Your task to perform on an android device: Go to network settings Image 0: 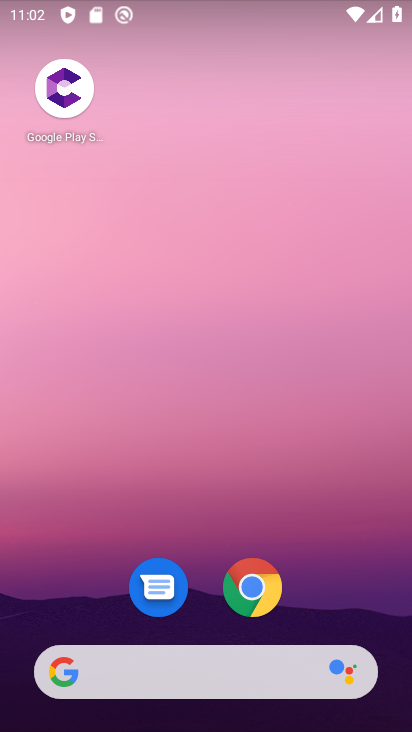
Step 0: drag from (322, 604) to (271, 58)
Your task to perform on an android device: Go to network settings Image 1: 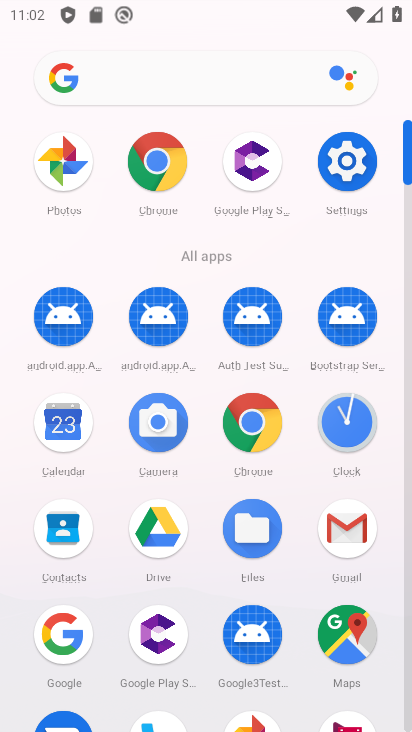
Step 1: click (347, 160)
Your task to perform on an android device: Go to network settings Image 2: 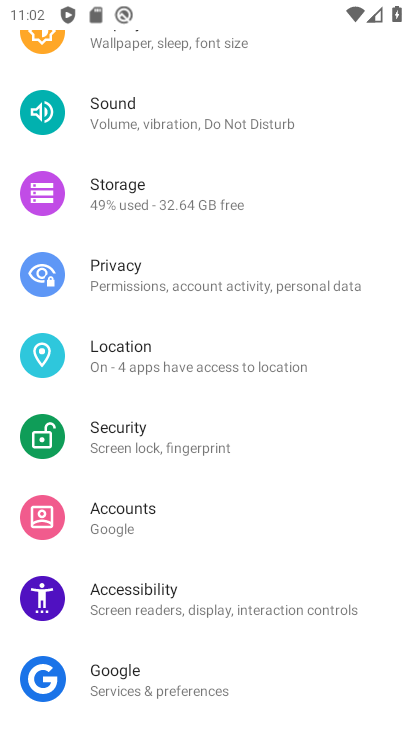
Step 2: drag from (232, 111) to (253, 576)
Your task to perform on an android device: Go to network settings Image 3: 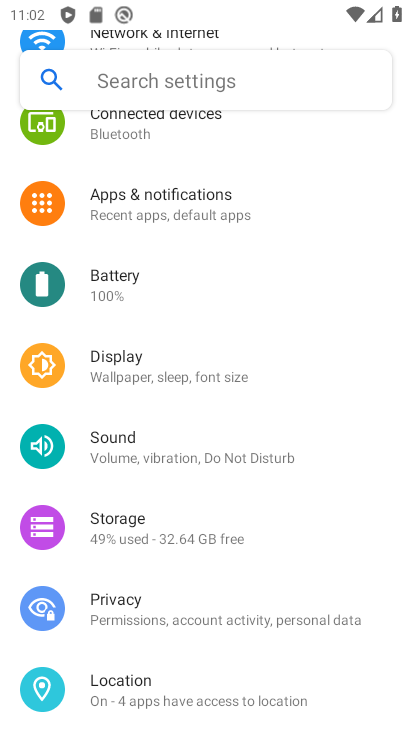
Step 3: drag from (207, 165) to (194, 597)
Your task to perform on an android device: Go to network settings Image 4: 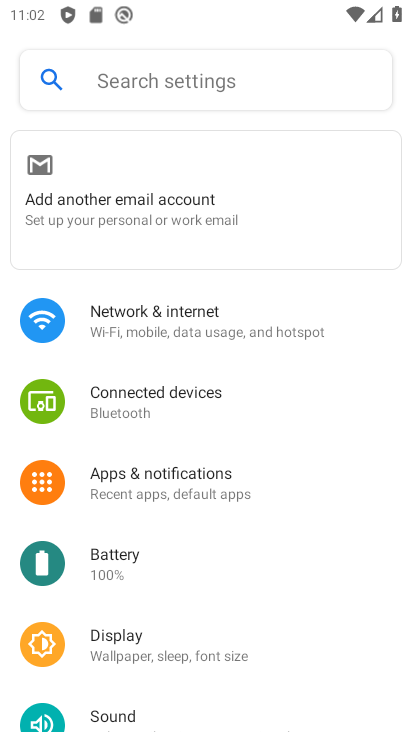
Step 4: click (161, 332)
Your task to perform on an android device: Go to network settings Image 5: 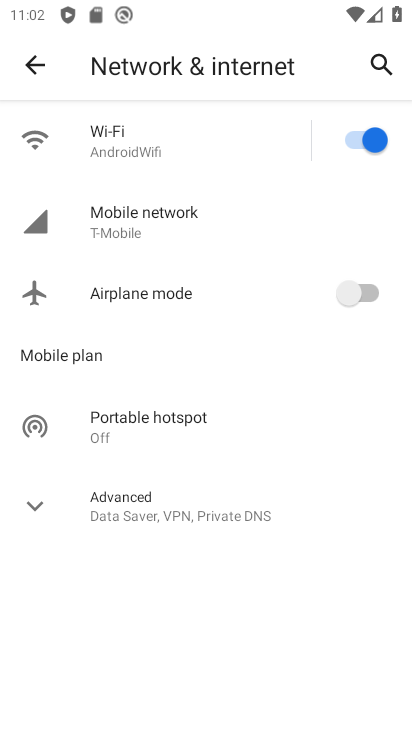
Step 5: task complete